Your task to perform on an android device: Go to privacy settings Image 0: 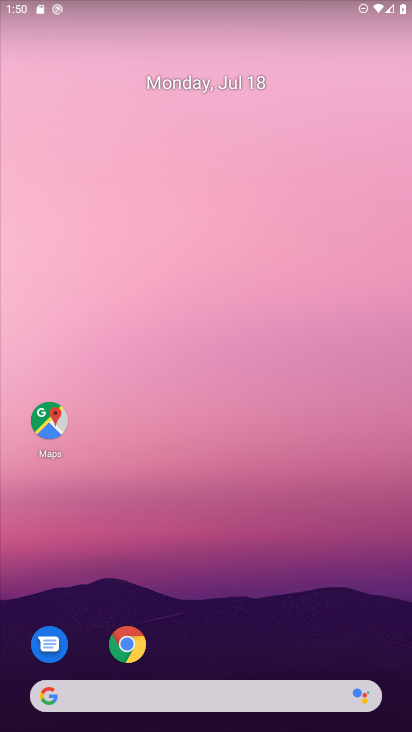
Step 0: drag from (337, 573) to (206, 48)
Your task to perform on an android device: Go to privacy settings Image 1: 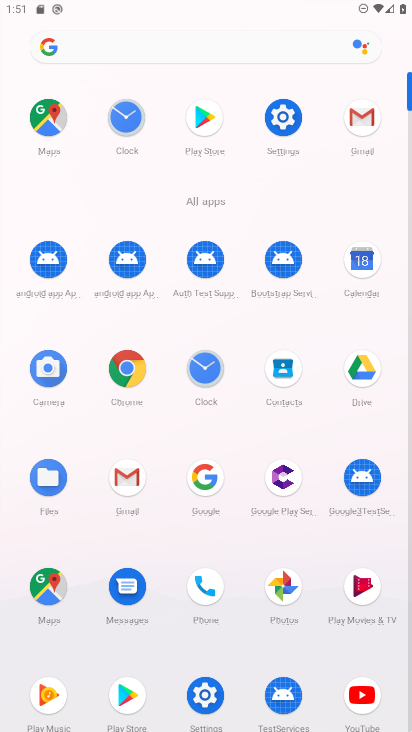
Step 1: click (202, 694)
Your task to perform on an android device: Go to privacy settings Image 2: 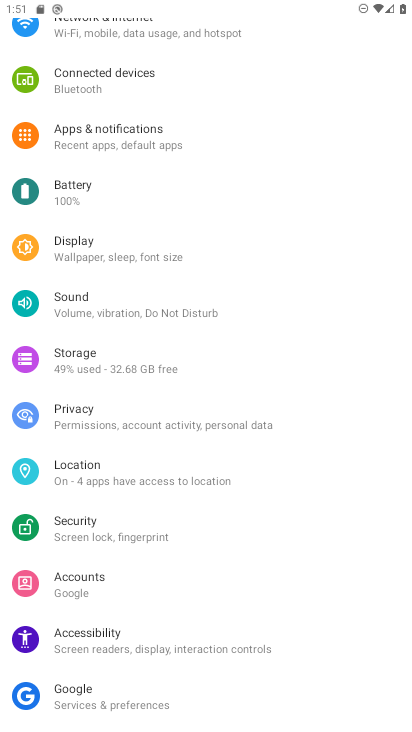
Step 2: click (114, 421)
Your task to perform on an android device: Go to privacy settings Image 3: 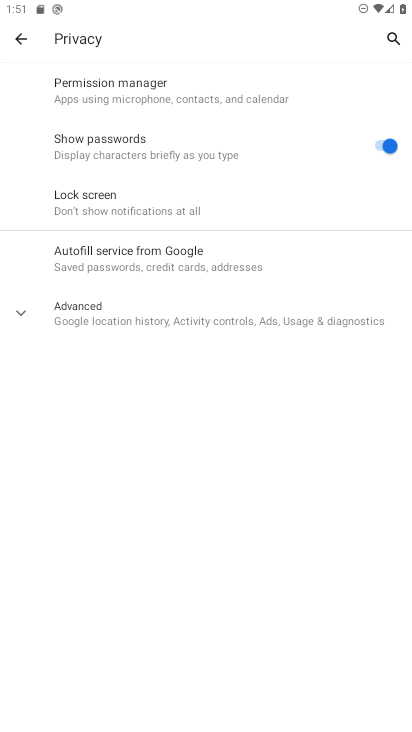
Step 3: task complete